Your task to perform on an android device: Open Maps and search for coffee Image 0: 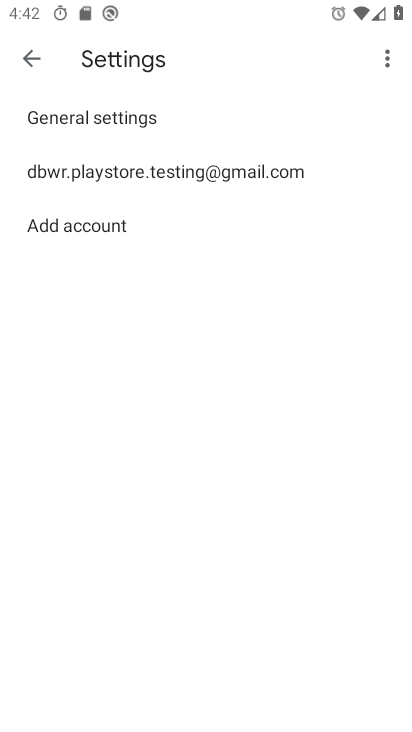
Step 0: press home button
Your task to perform on an android device: Open Maps and search for coffee Image 1: 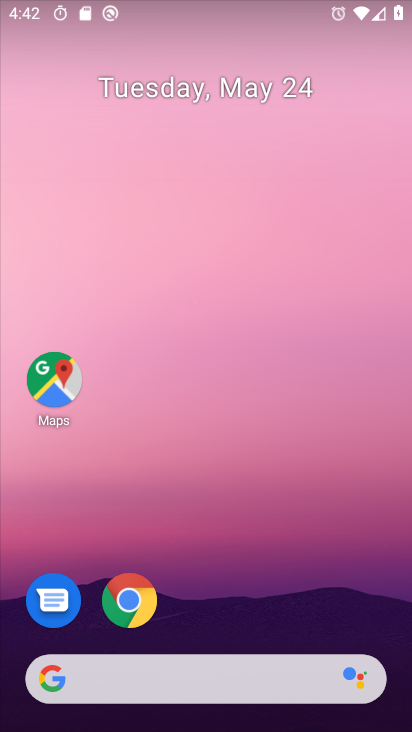
Step 1: drag from (230, 701) to (324, 5)
Your task to perform on an android device: Open Maps and search for coffee Image 2: 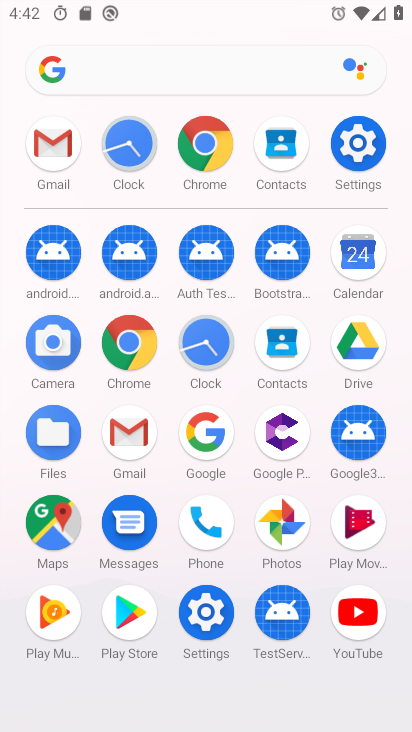
Step 2: click (51, 504)
Your task to perform on an android device: Open Maps and search for coffee Image 3: 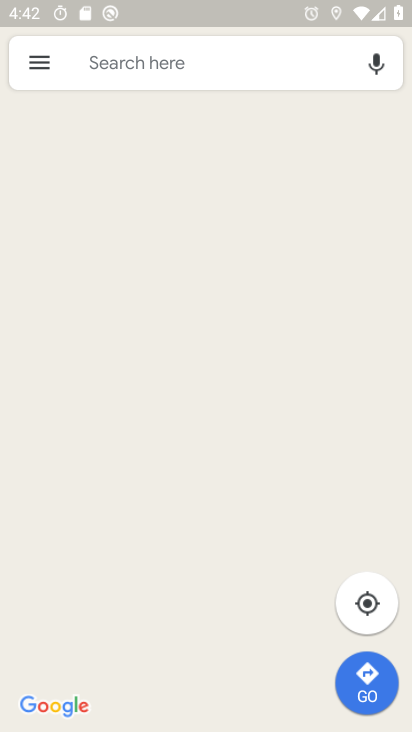
Step 3: click (30, 68)
Your task to perform on an android device: Open Maps and search for coffee Image 4: 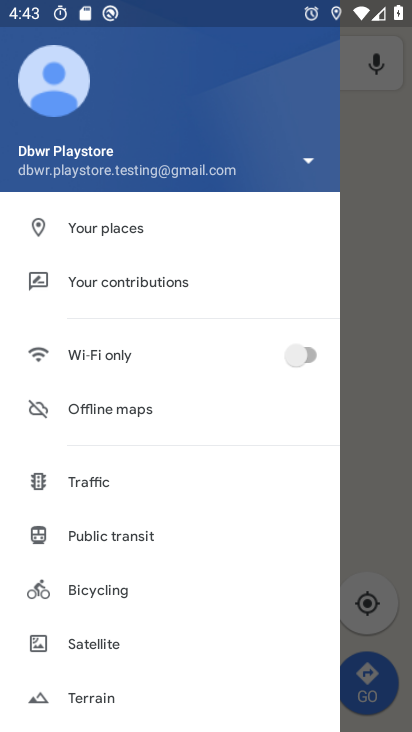
Step 4: click (374, 363)
Your task to perform on an android device: Open Maps and search for coffee Image 5: 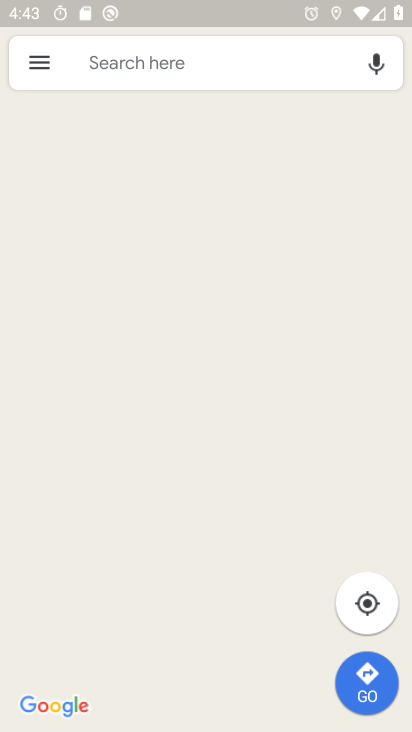
Step 5: click (197, 63)
Your task to perform on an android device: Open Maps and search for coffee Image 6: 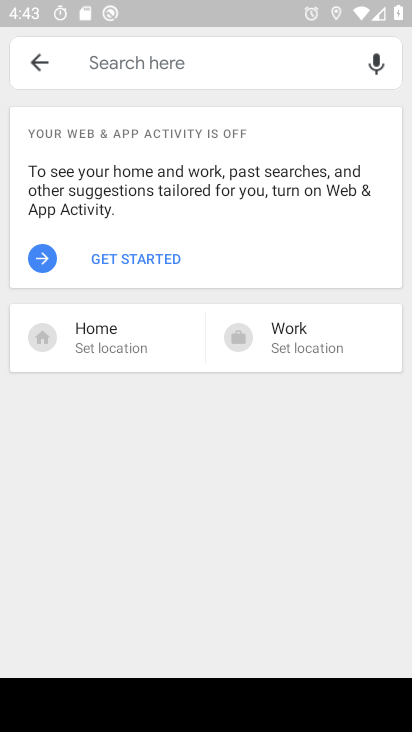
Step 6: type "coffee"
Your task to perform on an android device: Open Maps and search for coffee Image 7: 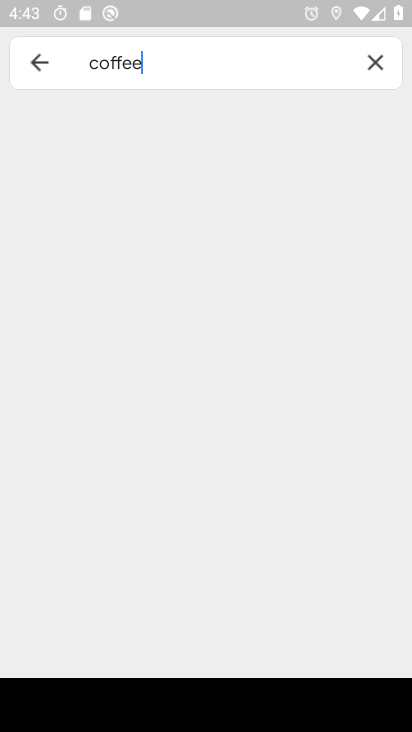
Step 7: task complete